Your task to perform on an android device: Open settings on Google Maps Image 0: 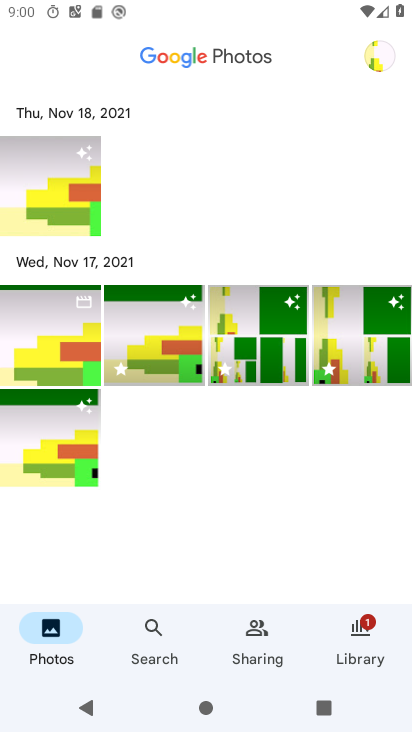
Step 0: press home button
Your task to perform on an android device: Open settings on Google Maps Image 1: 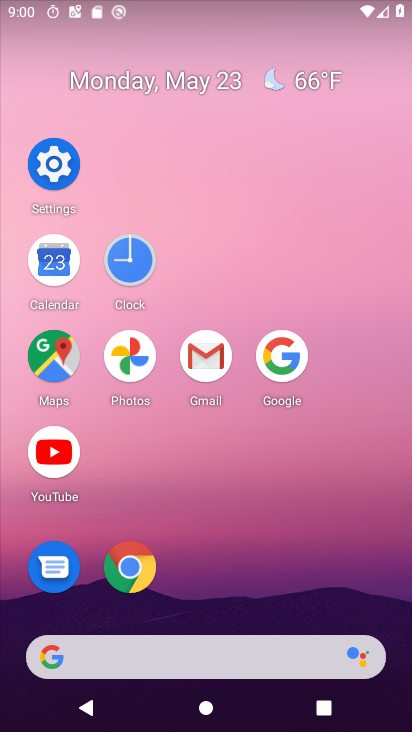
Step 1: click (61, 350)
Your task to perform on an android device: Open settings on Google Maps Image 2: 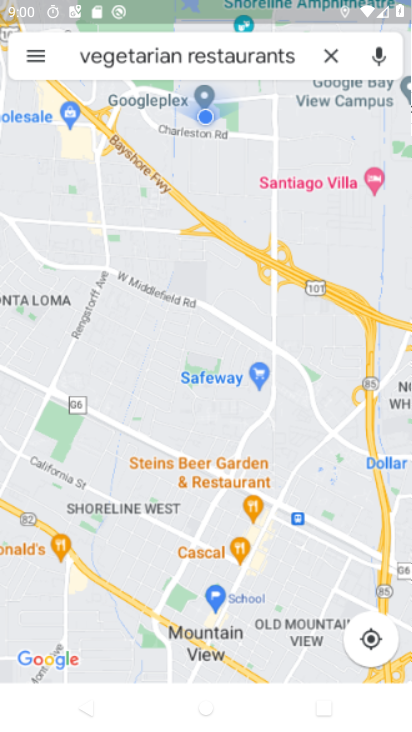
Step 2: click (49, 52)
Your task to perform on an android device: Open settings on Google Maps Image 3: 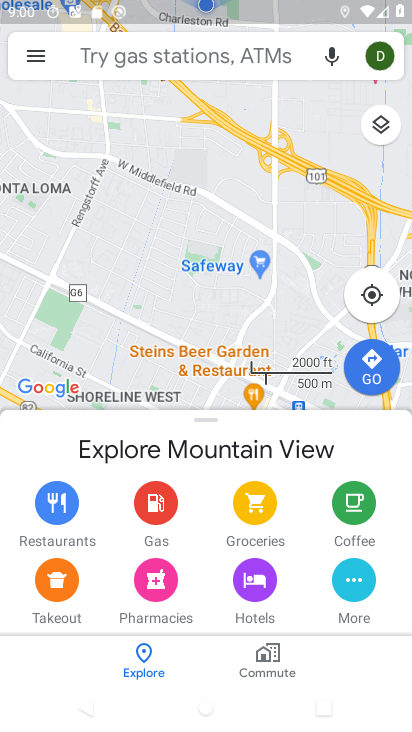
Step 3: click (24, 47)
Your task to perform on an android device: Open settings on Google Maps Image 4: 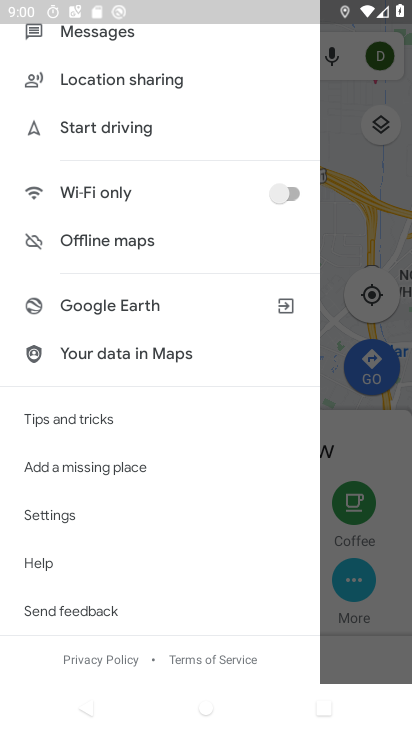
Step 4: click (90, 521)
Your task to perform on an android device: Open settings on Google Maps Image 5: 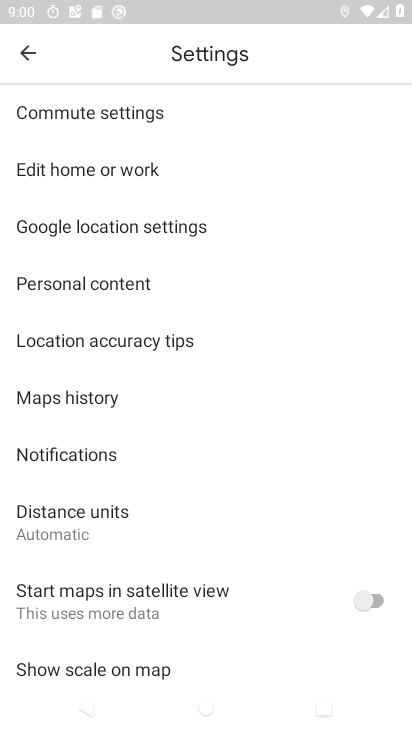
Step 5: task complete